Your task to perform on an android device: set default search engine in the chrome app Image 0: 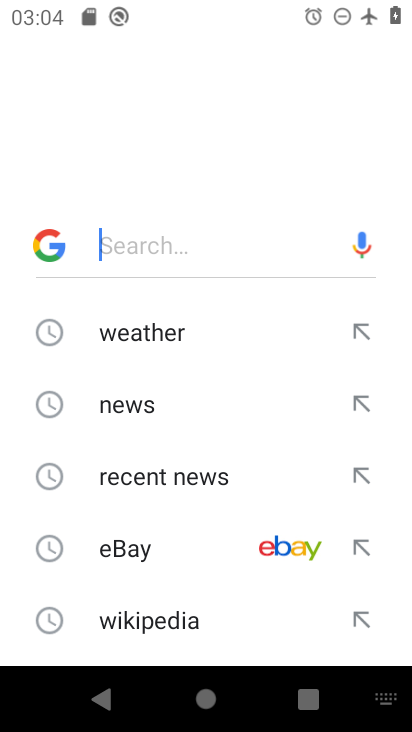
Step 0: press home button
Your task to perform on an android device: set default search engine in the chrome app Image 1: 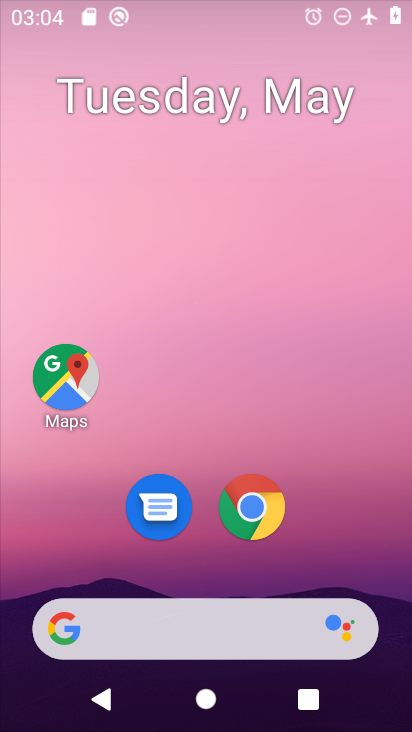
Step 1: click (267, 497)
Your task to perform on an android device: set default search engine in the chrome app Image 2: 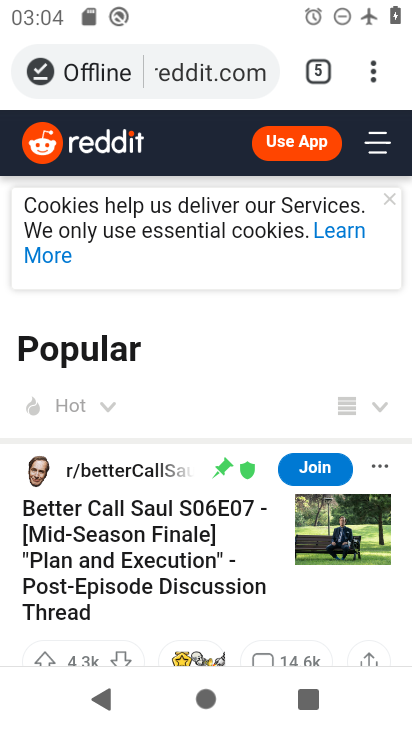
Step 2: drag from (367, 70) to (157, 508)
Your task to perform on an android device: set default search engine in the chrome app Image 3: 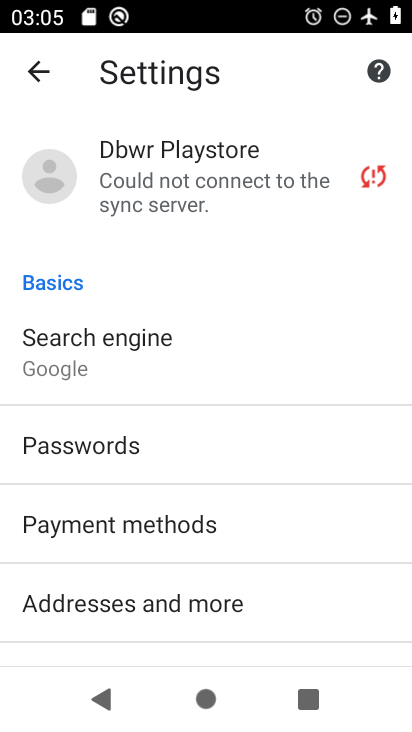
Step 3: click (164, 372)
Your task to perform on an android device: set default search engine in the chrome app Image 4: 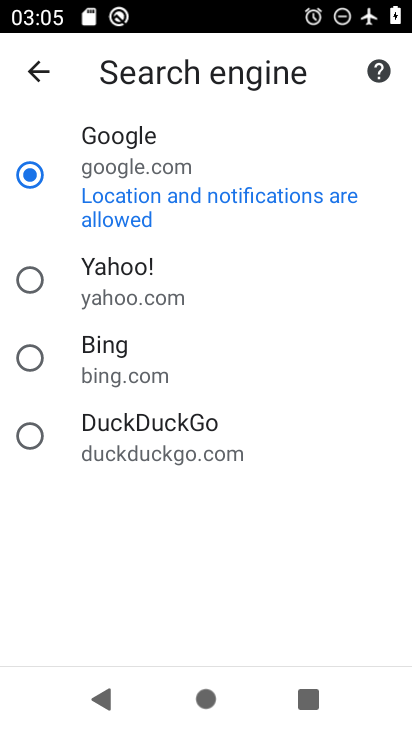
Step 4: click (50, 282)
Your task to perform on an android device: set default search engine in the chrome app Image 5: 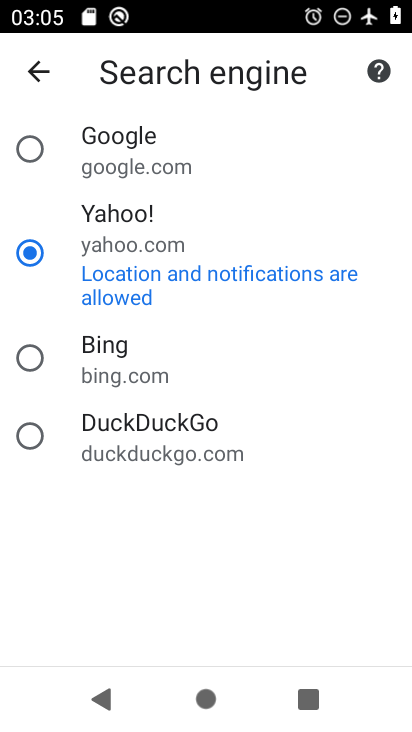
Step 5: task complete